Your task to perform on an android device: Open calendar and show me the first week of next month Image 0: 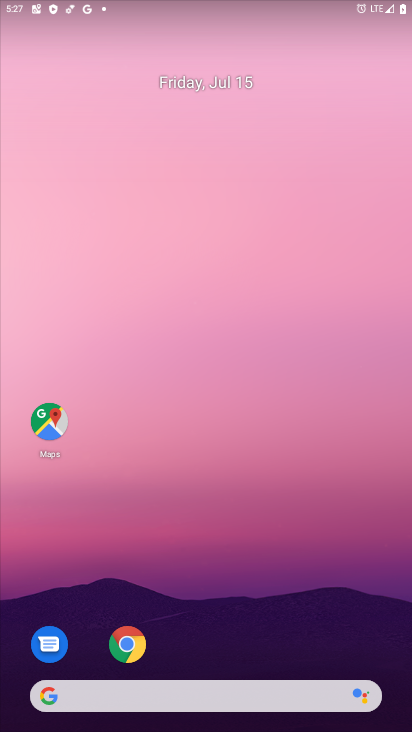
Step 0: drag from (209, 659) to (191, 15)
Your task to perform on an android device: Open calendar and show me the first week of next month Image 1: 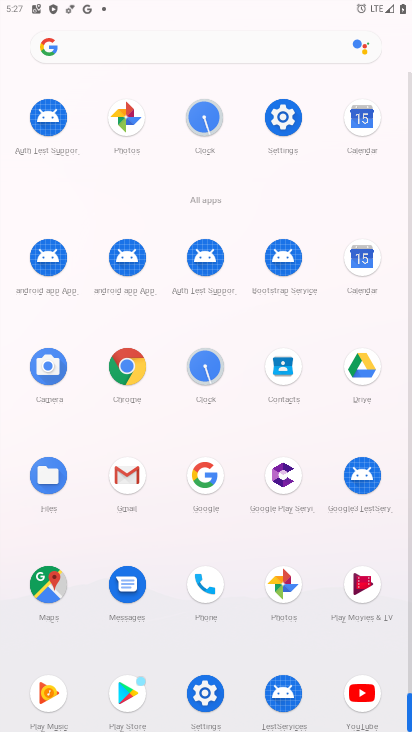
Step 1: click (273, 123)
Your task to perform on an android device: Open calendar and show me the first week of next month Image 2: 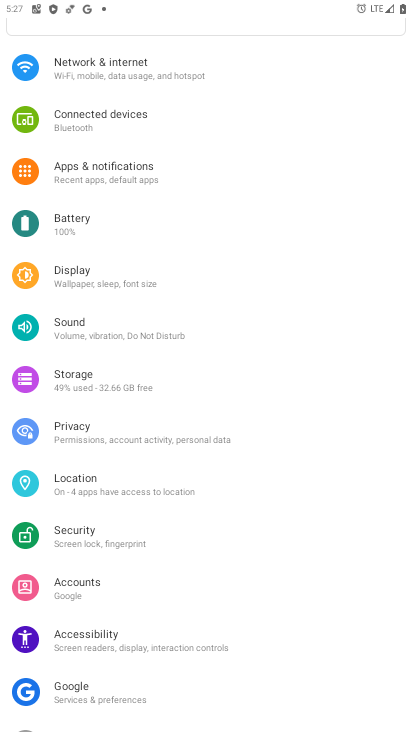
Step 2: press home button
Your task to perform on an android device: Open calendar and show me the first week of next month Image 3: 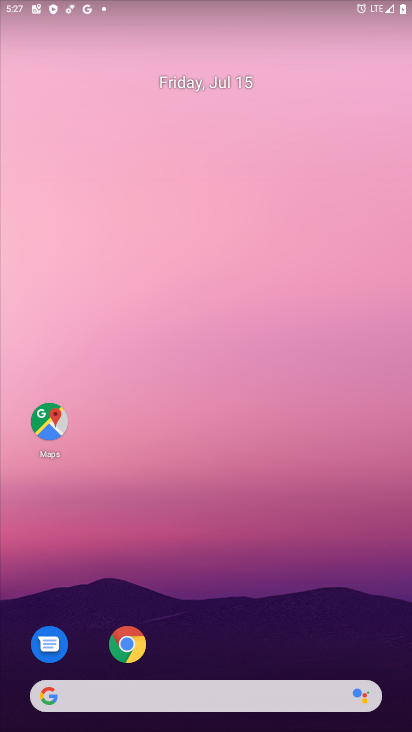
Step 3: drag from (213, 661) to (51, 168)
Your task to perform on an android device: Open calendar and show me the first week of next month Image 4: 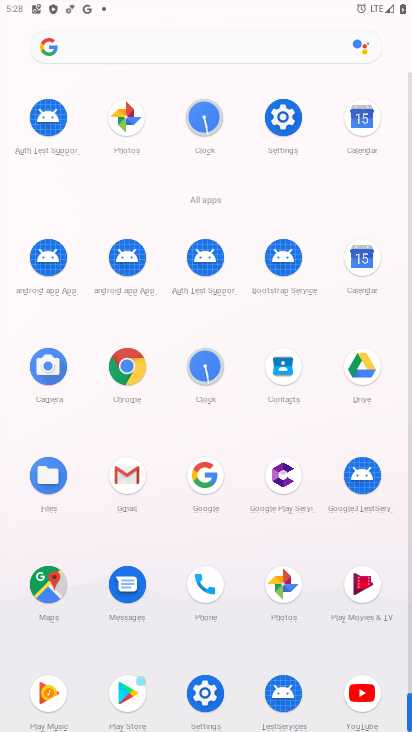
Step 4: click (354, 244)
Your task to perform on an android device: Open calendar and show me the first week of next month Image 5: 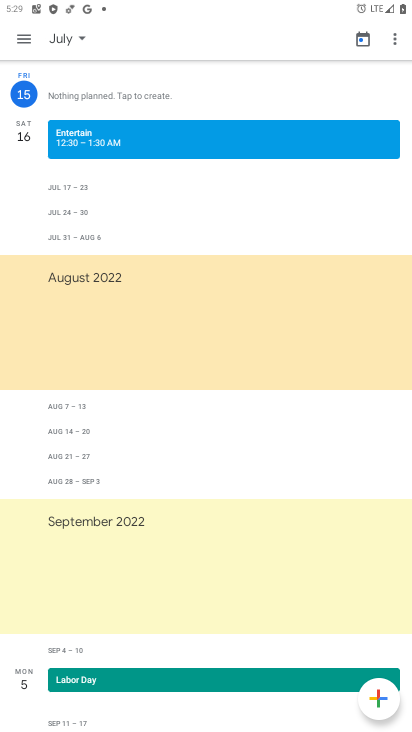
Step 5: click (21, 37)
Your task to perform on an android device: Open calendar and show me the first week of next month Image 6: 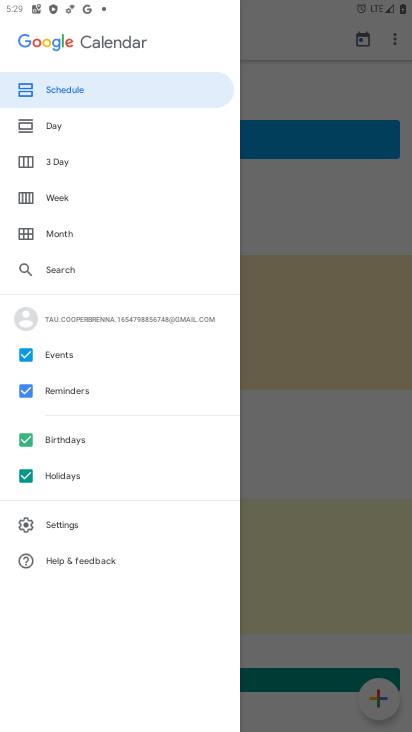
Step 6: click (26, 210)
Your task to perform on an android device: Open calendar and show me the first week of next month Image 7: 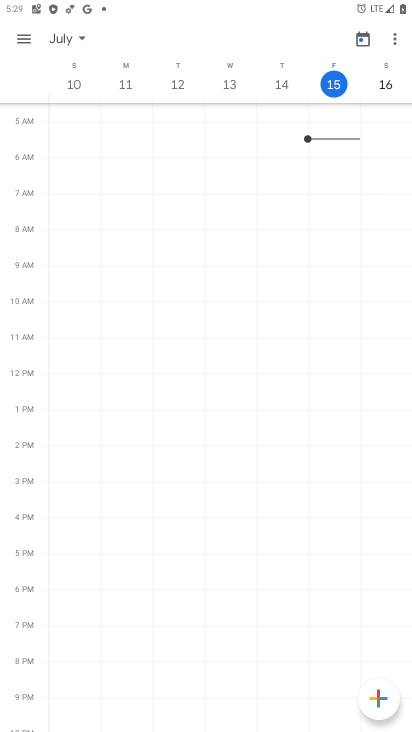
Step 7: task complete